Your task to perform on an android device: Toggle the flashlight Image 0: 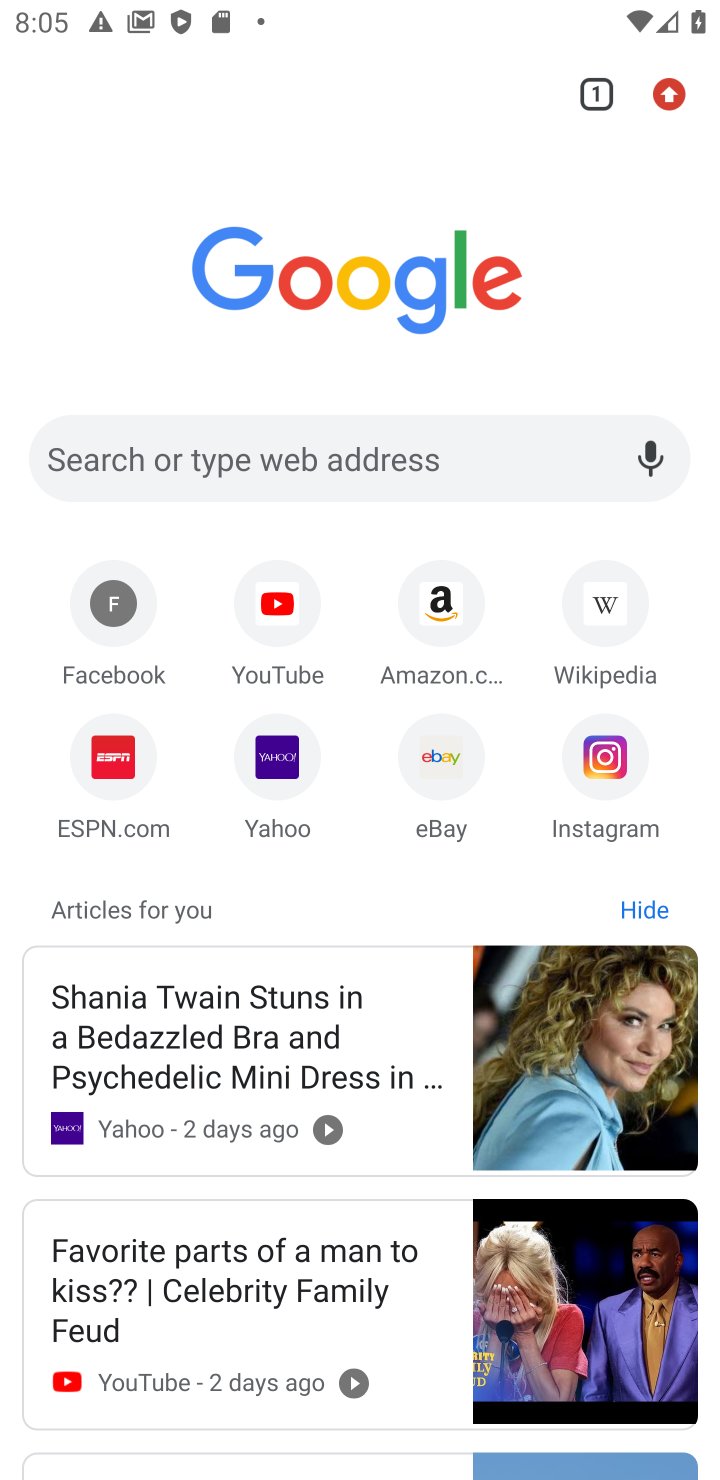
Step 0: press home button
Your task to perform on an android device: Toggle the flashlight Image 1: 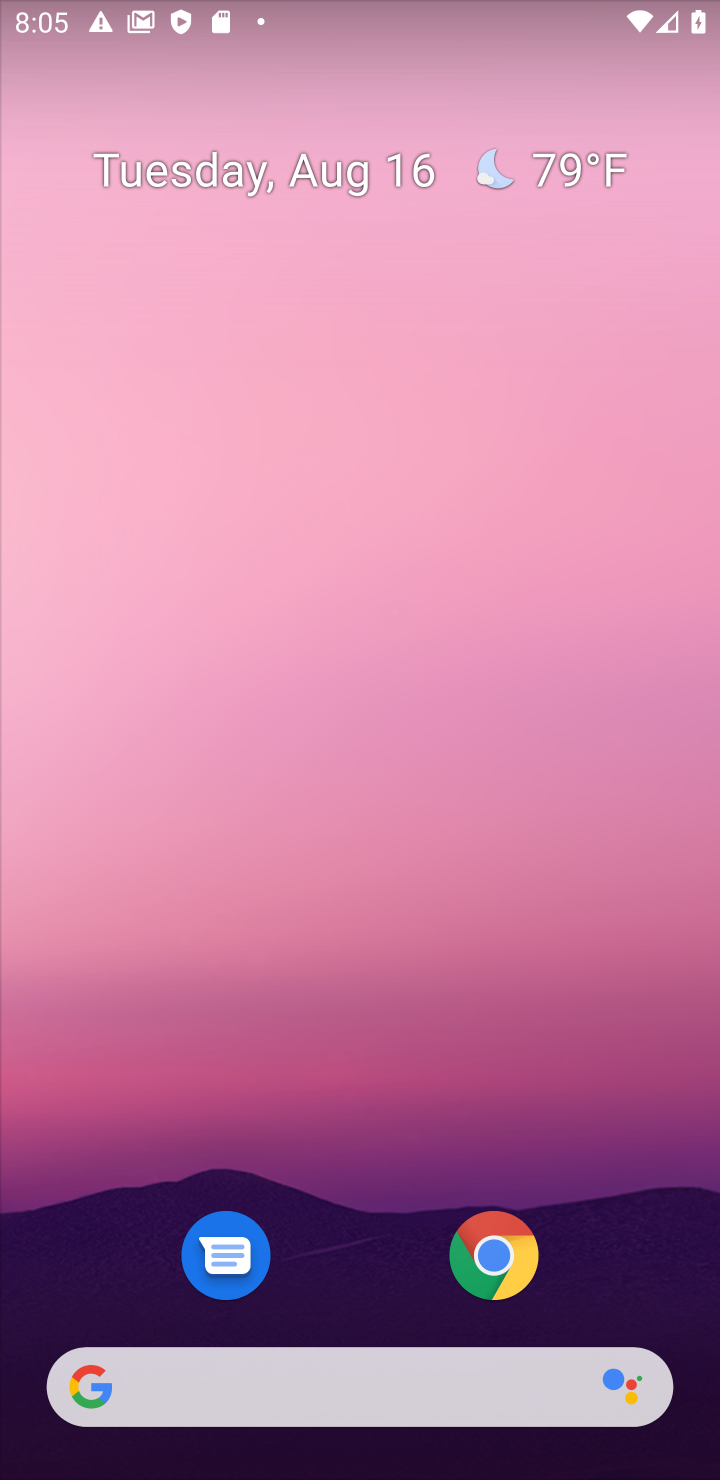
Step 1: task complete